Your task to perform on an android device: turn on notifications settings in the gmail app Image 0: 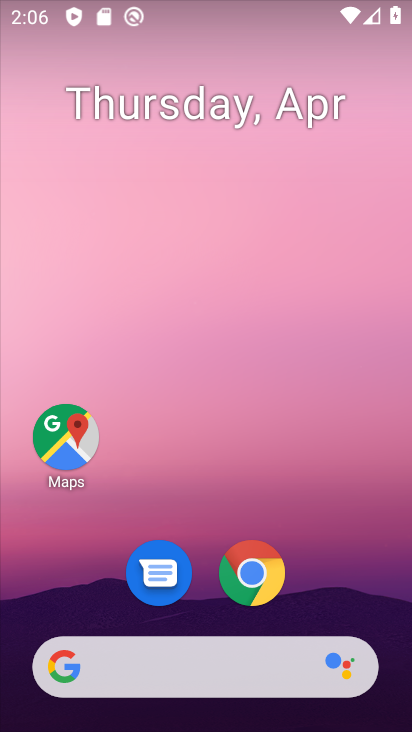
Step 0: drag from (355, 602) to (267, 26)
Your task to perform on an android device: turn on notifications settings in the gmail app Image 1: 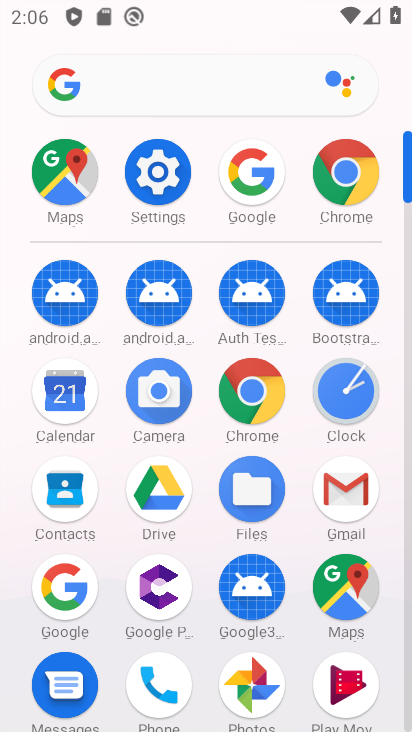
Step 1: click (350, 483)
Your task to perform on an android device: turn on notifications settings in the gmail app Image 2: 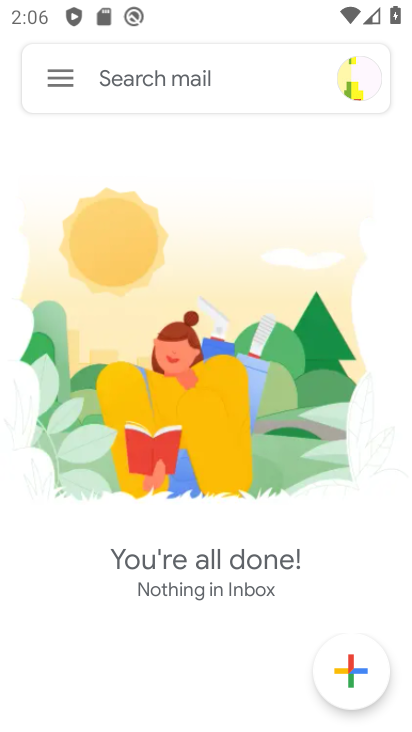
Step 2: click (47, 74)
Your task to perform on an android device: turn on notifications settings in the gmail app Image 3: 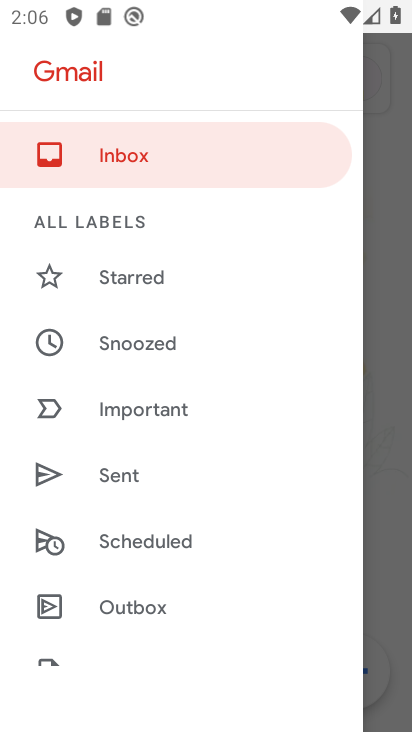
Step 3: drag from (98, 595) to (200, 136)
Your task to perform on an android device: turn on notifications settings in the gmail app Image 4: 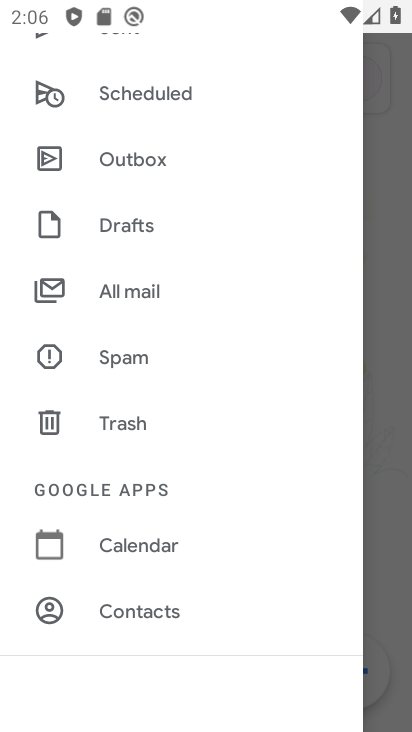
Step 4: drag from (157, 610) to (218, 235)
Your task to perform on an android device: turn on notifications settings in the gmail app Image 5: 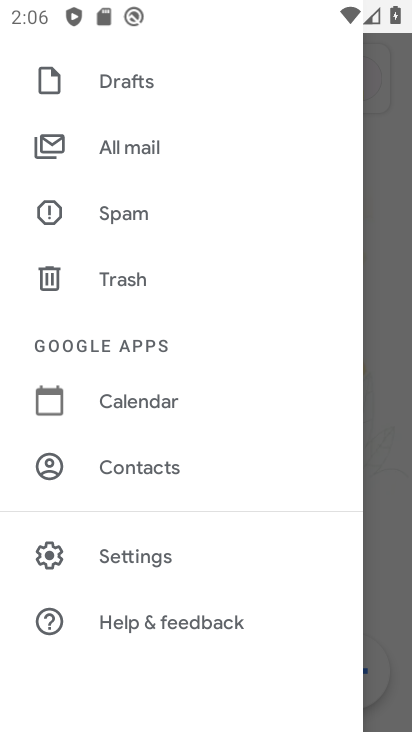
Step 5: click (150, 558)
Your task to perform on an android device: turn on notifications settings in the gmail app Image 6: 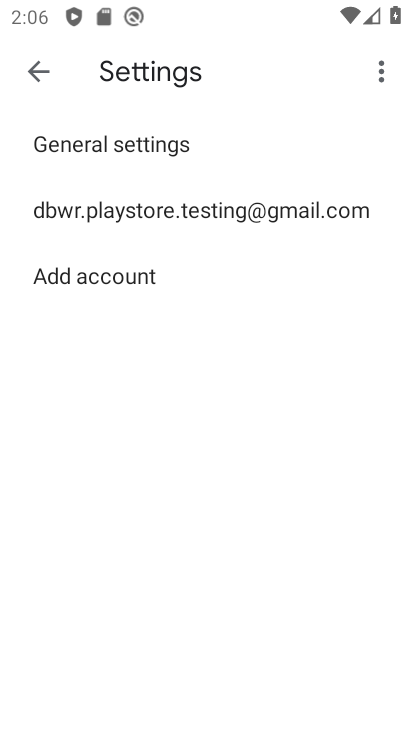
Step 6: click (246, 228)
Your task to perform on an android device: turn on notifications settings in the gmail app Image 7: 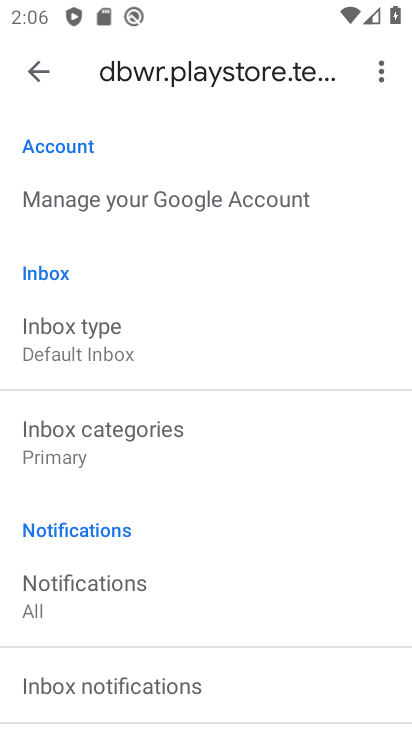
Step 7: click (173, 595)
Your task to perform on an android device: turn on notifications settings in the gmail app Image 8: 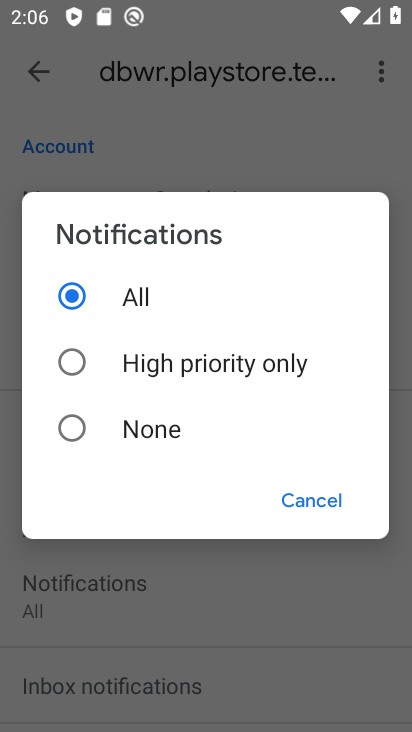
Step 8: task complete